Your task to perform on an android device: Search for seafood restaurants on Google Maps Image 0: 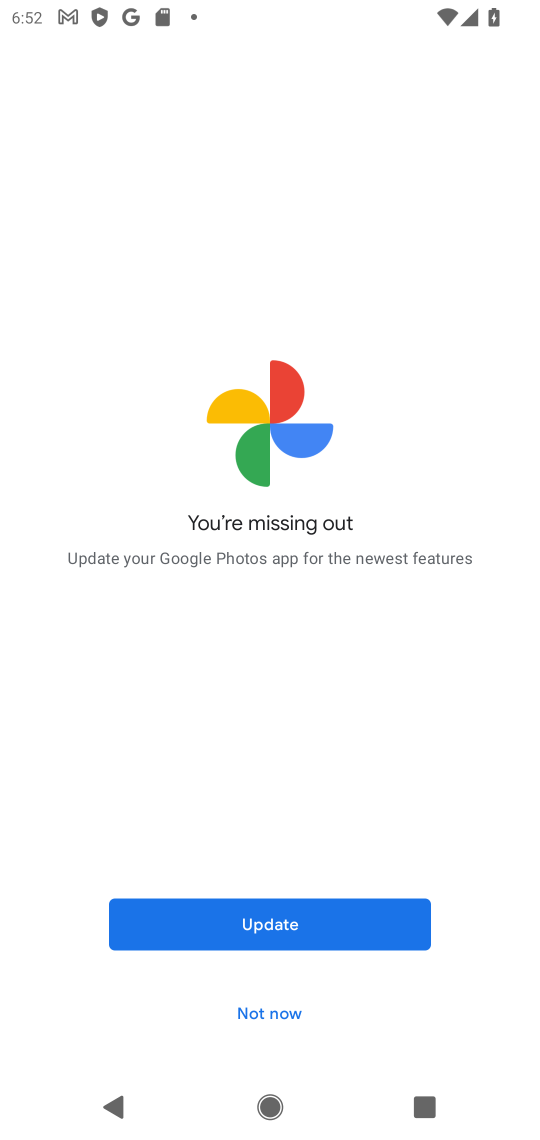
Step 0: press back button
Your task to perform on an android device: Search for seafood restaurants on Google Maps Image 1: 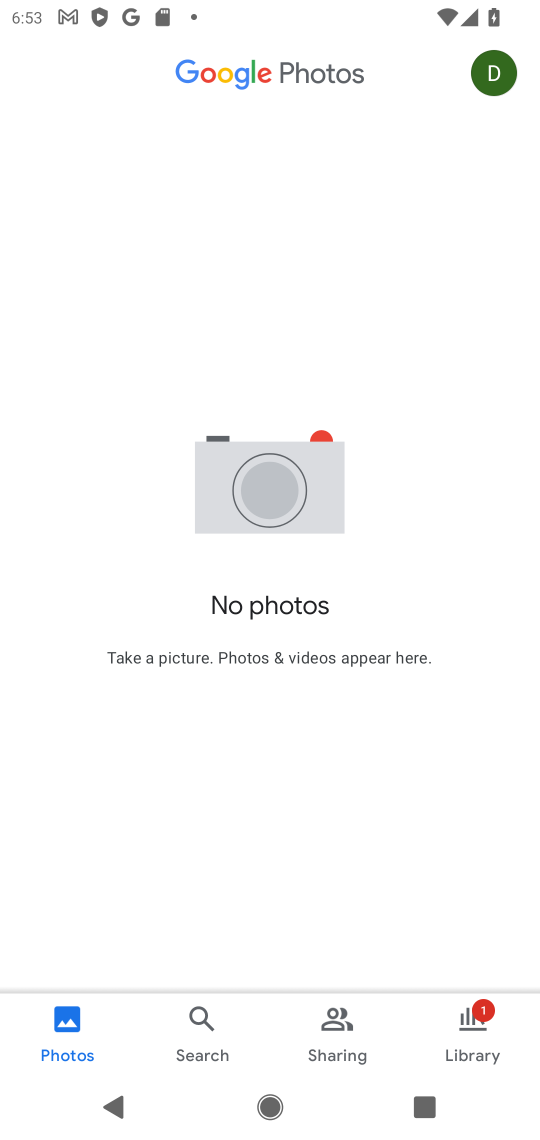
Step 1: press home button
Your task to perform on an android device: Search for seafood restaurants on Google Maps Image 2: 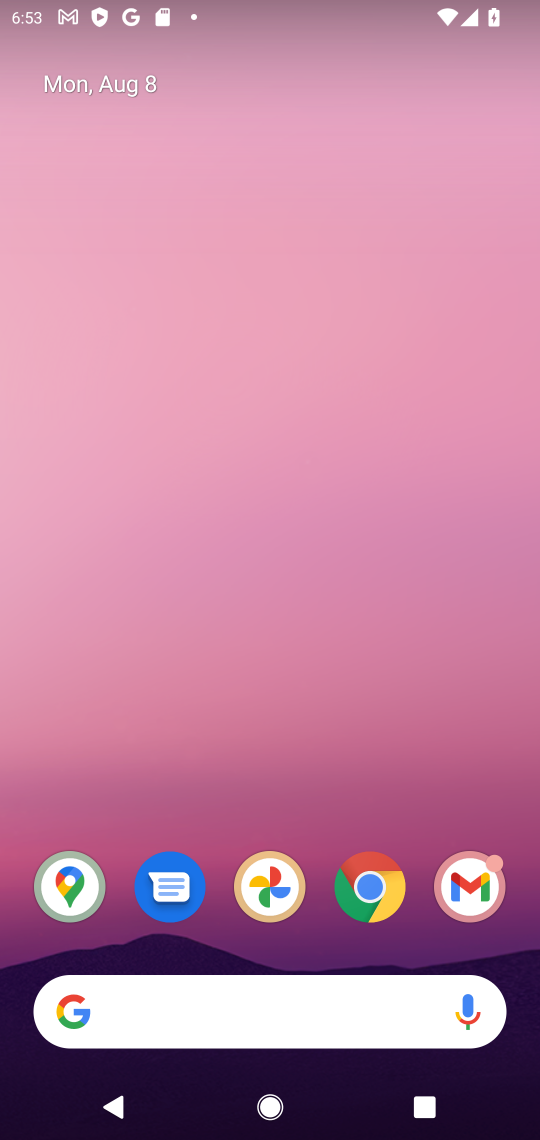
Step 2: click (59, 931)
Your task to perform on an android device: Search for seafood restaurants on Google Maps Image 3: 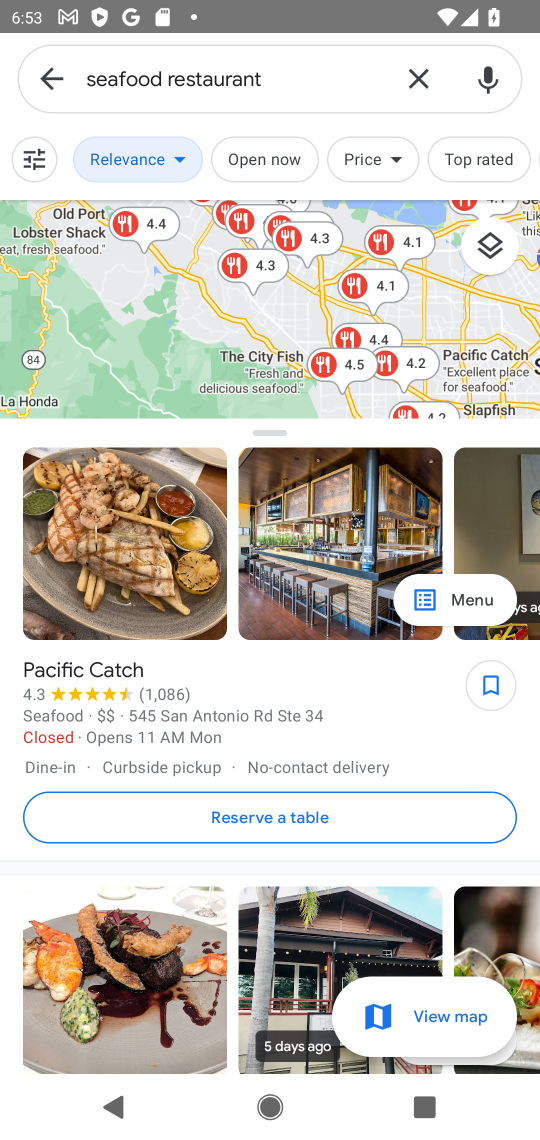
Step 3: task complete